Your task to perform on an android device: install app "DoorDash - Dasher" Image 0: 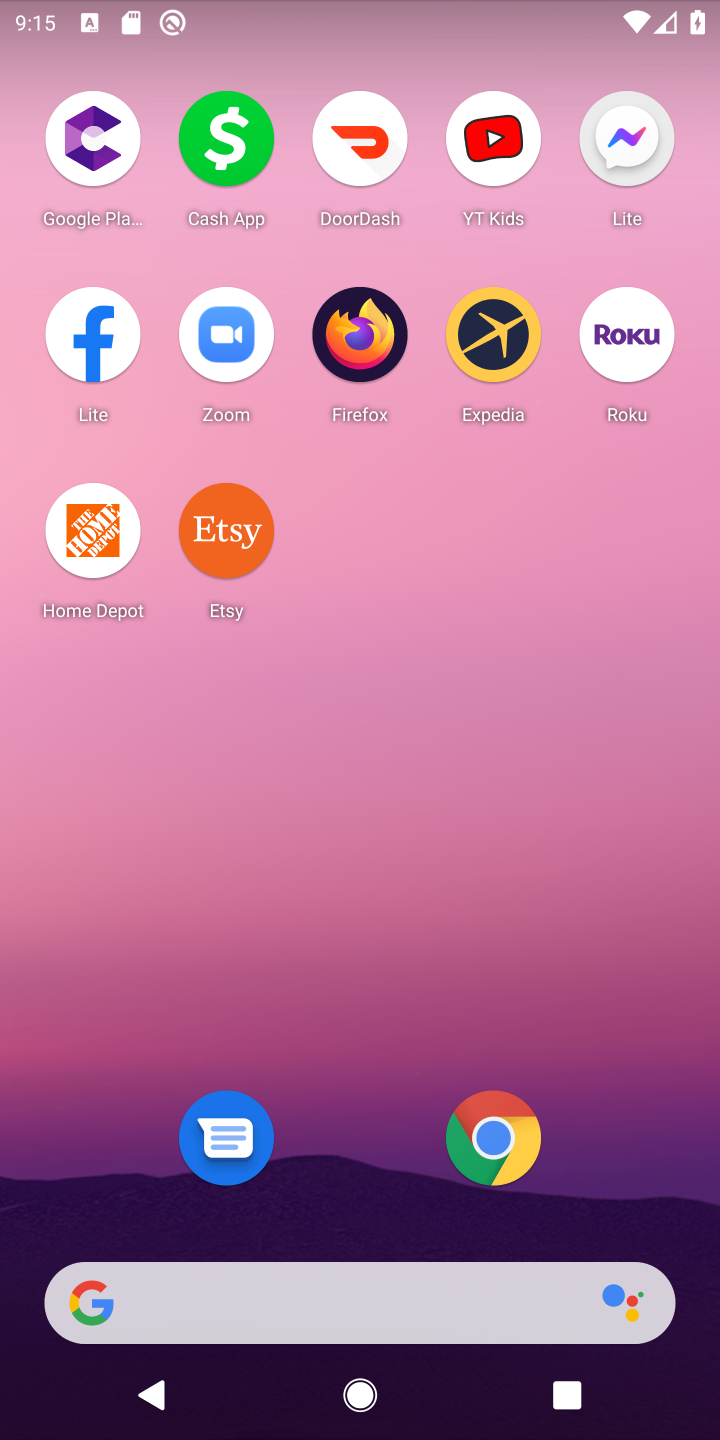
Step 0: drag from (348, 1266) to (450, 722)
Your task to perform on an android device: install app "DoorDash - Dasher" Image 1: 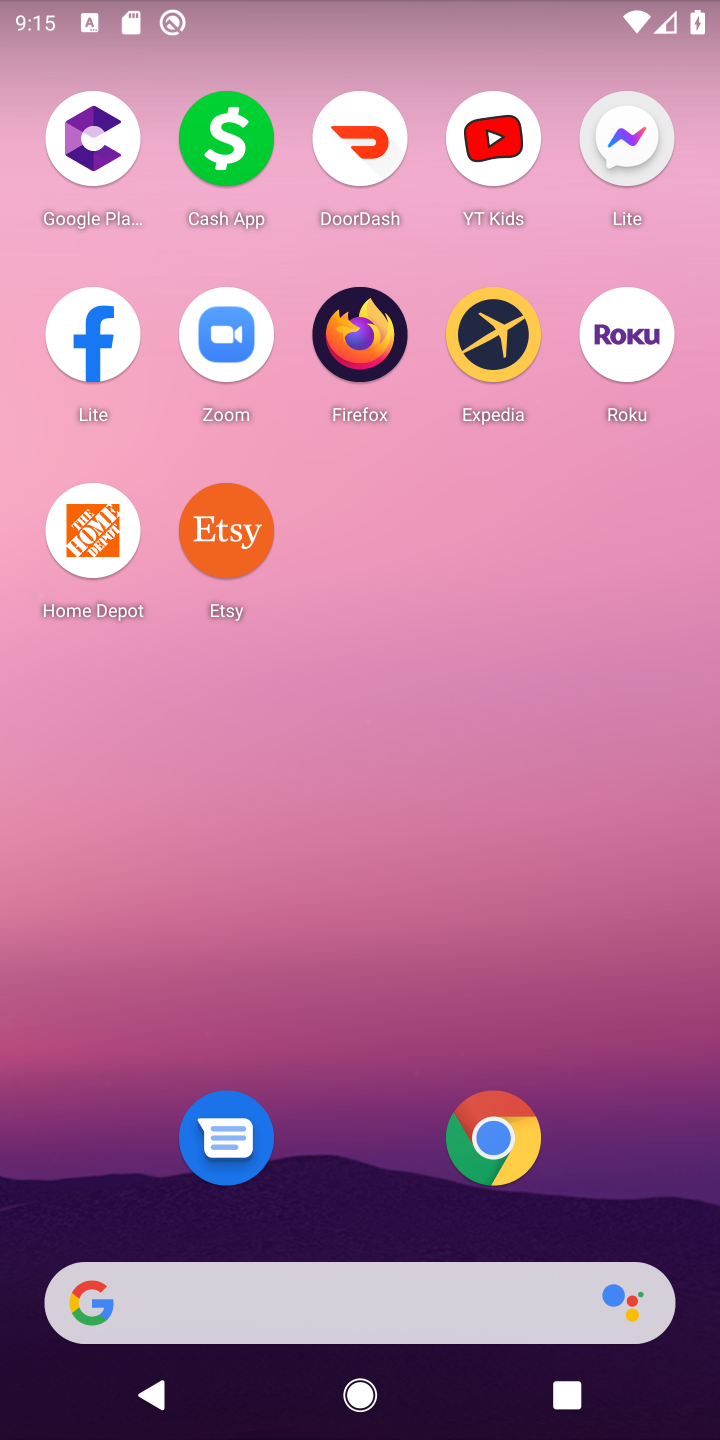
Step 1: drag from (288, 1183) to (300, 81)
Your task to perform on an android device: install app "DoorDash - Dasher" Image 2: 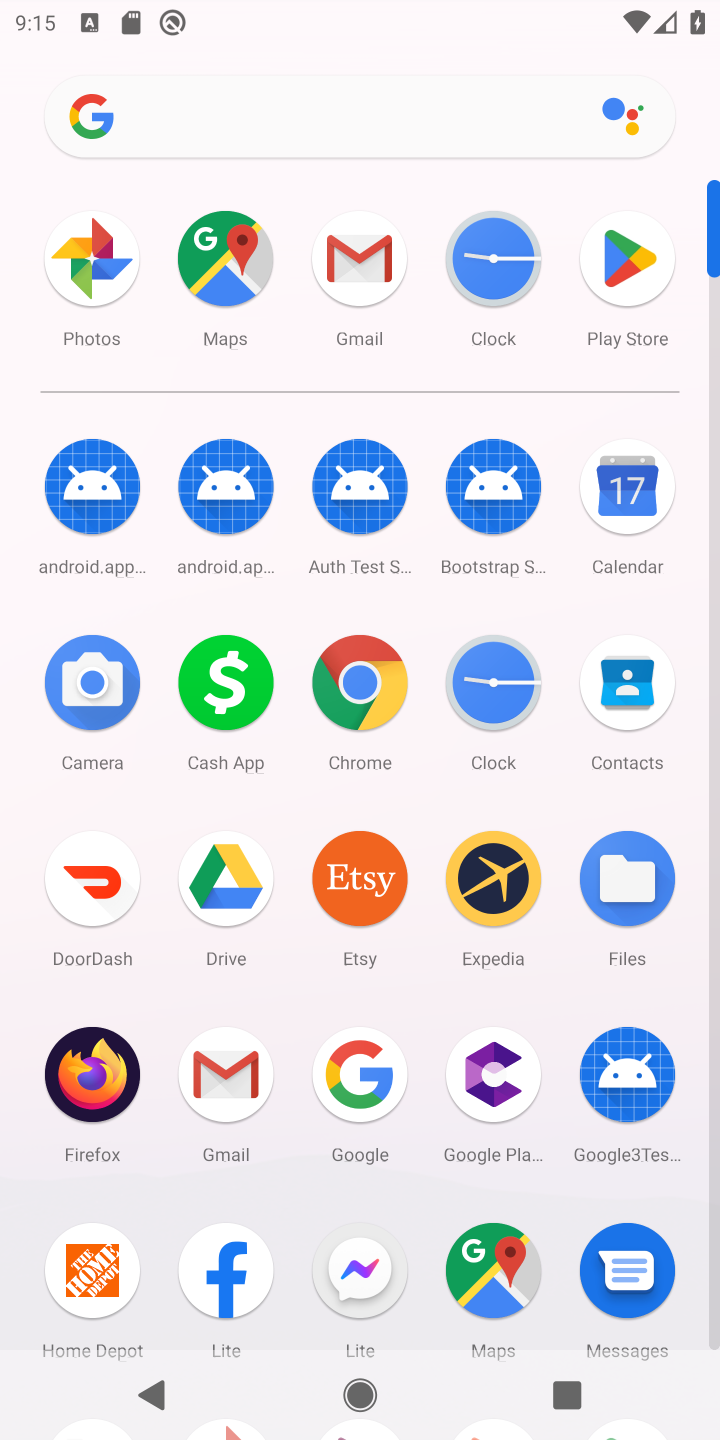
Step 2: click (625, 267)
Your task to perform on an android device: install app "DoorDash - Dasher" Image 3: 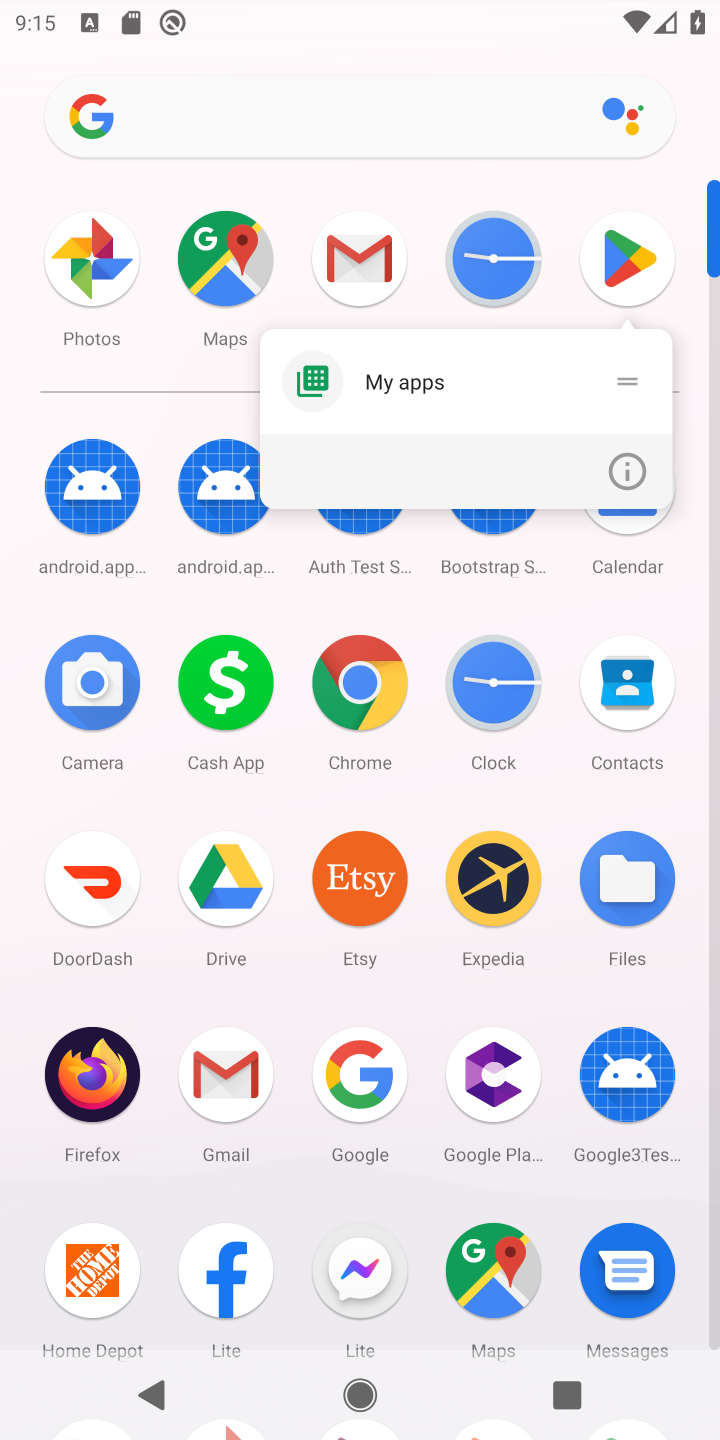
Step 3: click (625, 267)
Your task to perform on an android device: install app "DoorDash - Dasher" Image 4: 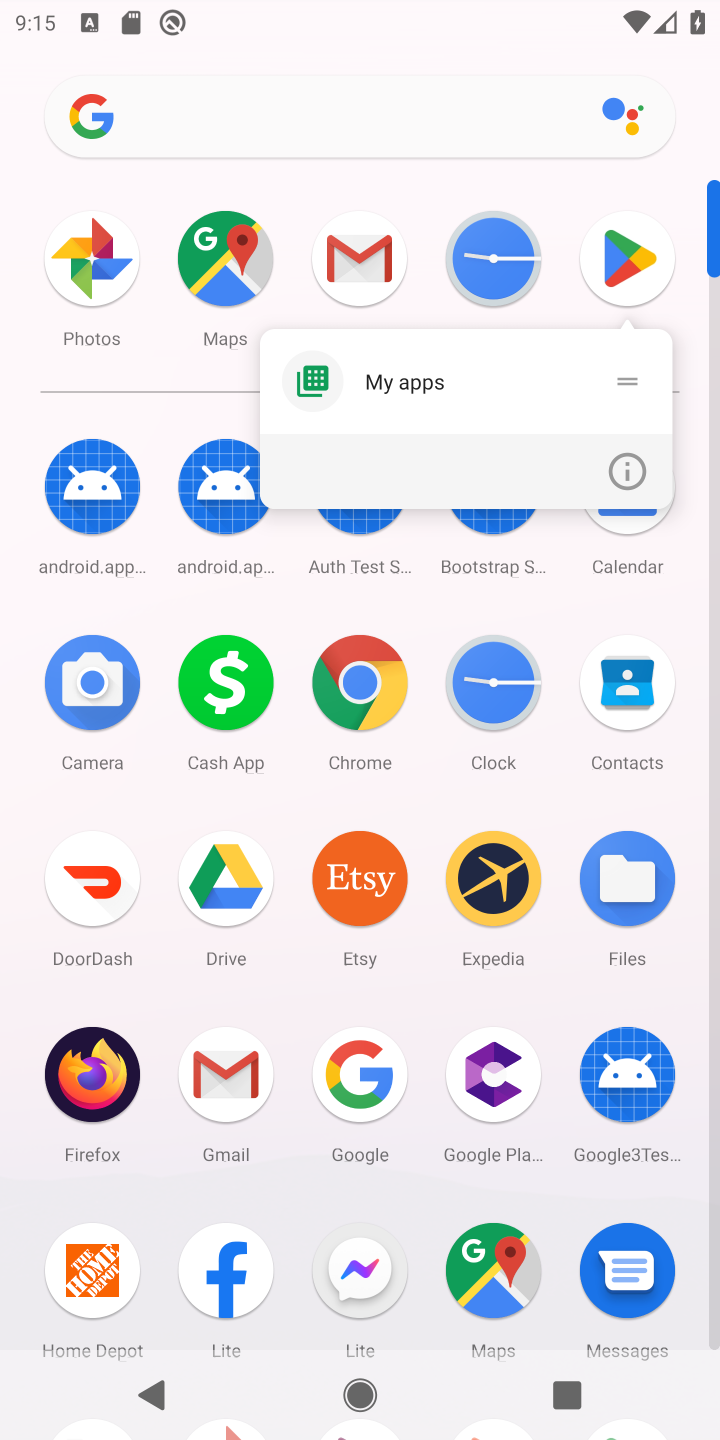
Step 4: click (625, 267)
Your task to perform on an android device: install app "DoorDash - Dasher" Image 5: 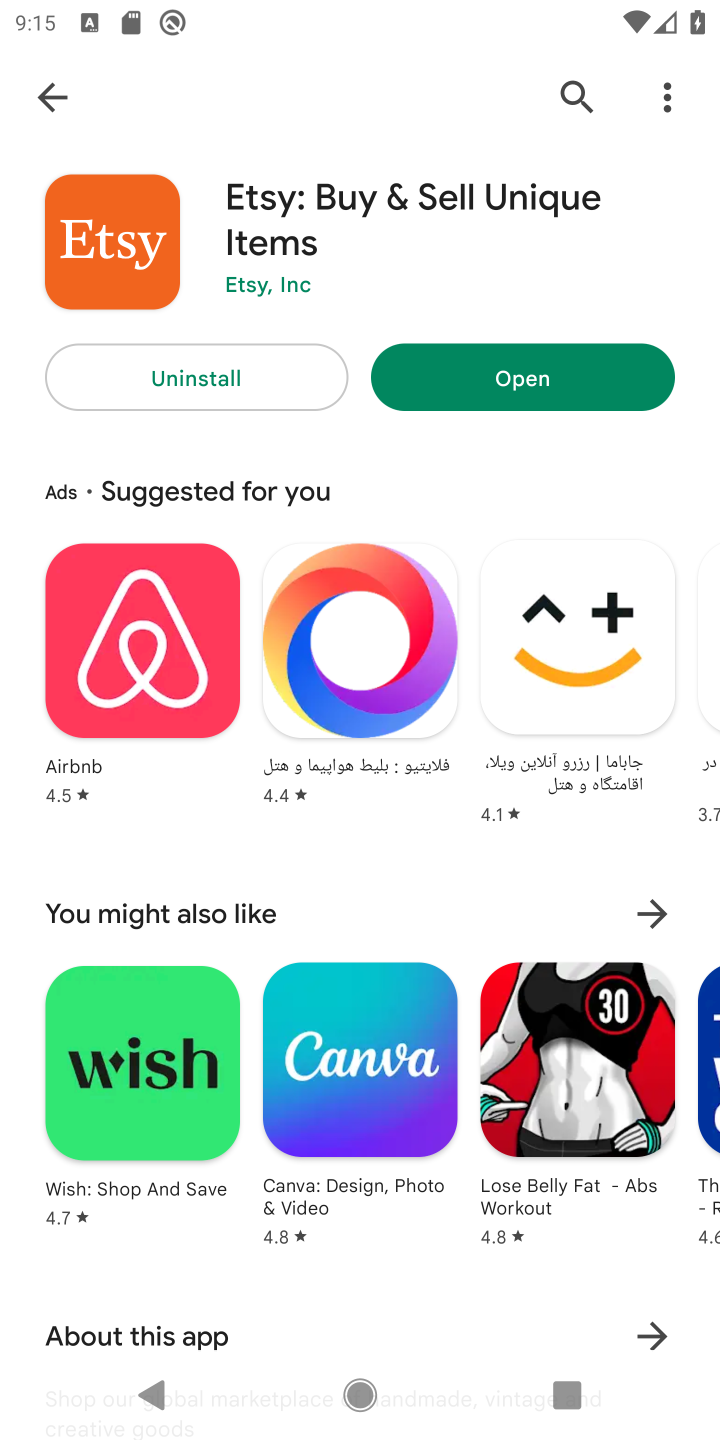
Step 5: click (47, 76)
Your task to perform on an android device: install app "DoorDash - Dasher" Image 6: 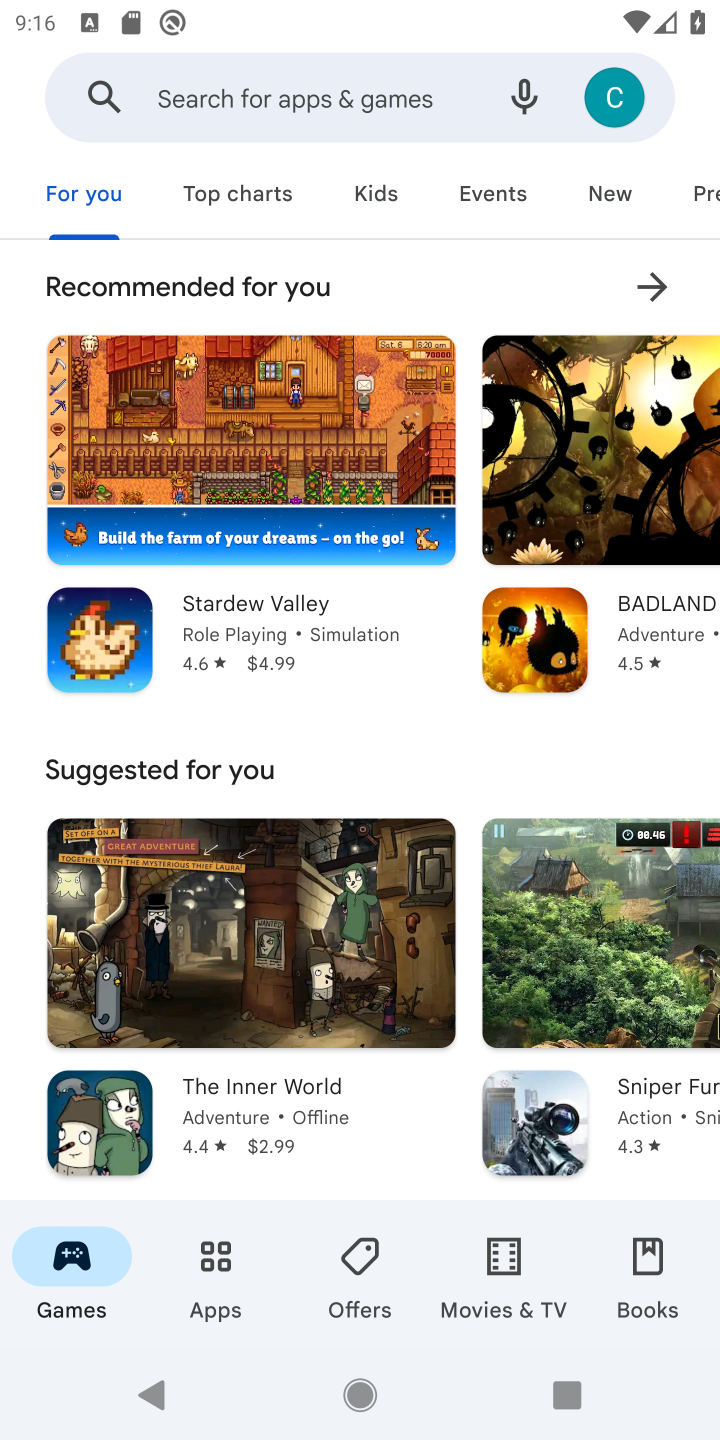
Step 6: click (326, 76)
Your task to perform on an android device: install app "DoorDash - Dasher" Image 7: 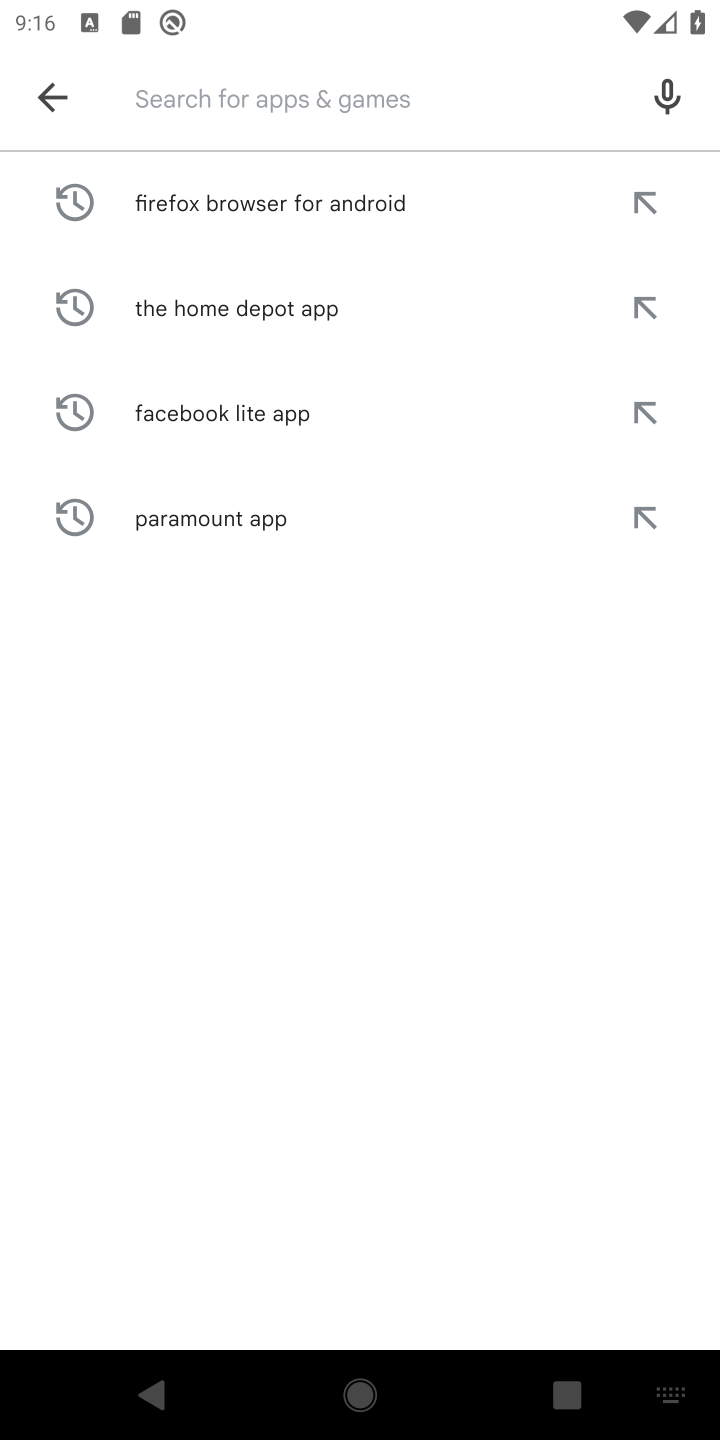
Step 7: type "DoorDash "
Your task to perform on an android device: install app "DoorDash - Dasher" Image 8: 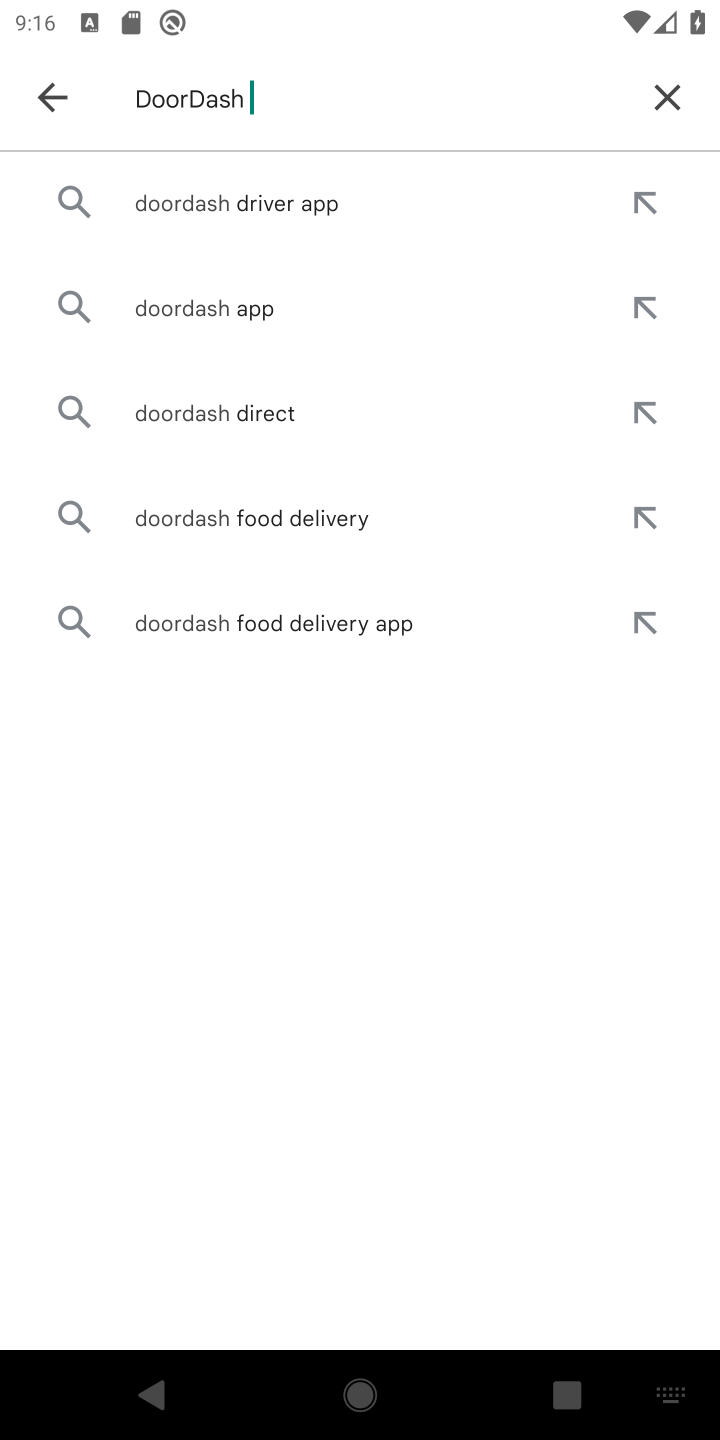
Step 8: click (197, 212)
Your task to perform on an android device: install app "DoorDash - Dasher" Image 9: 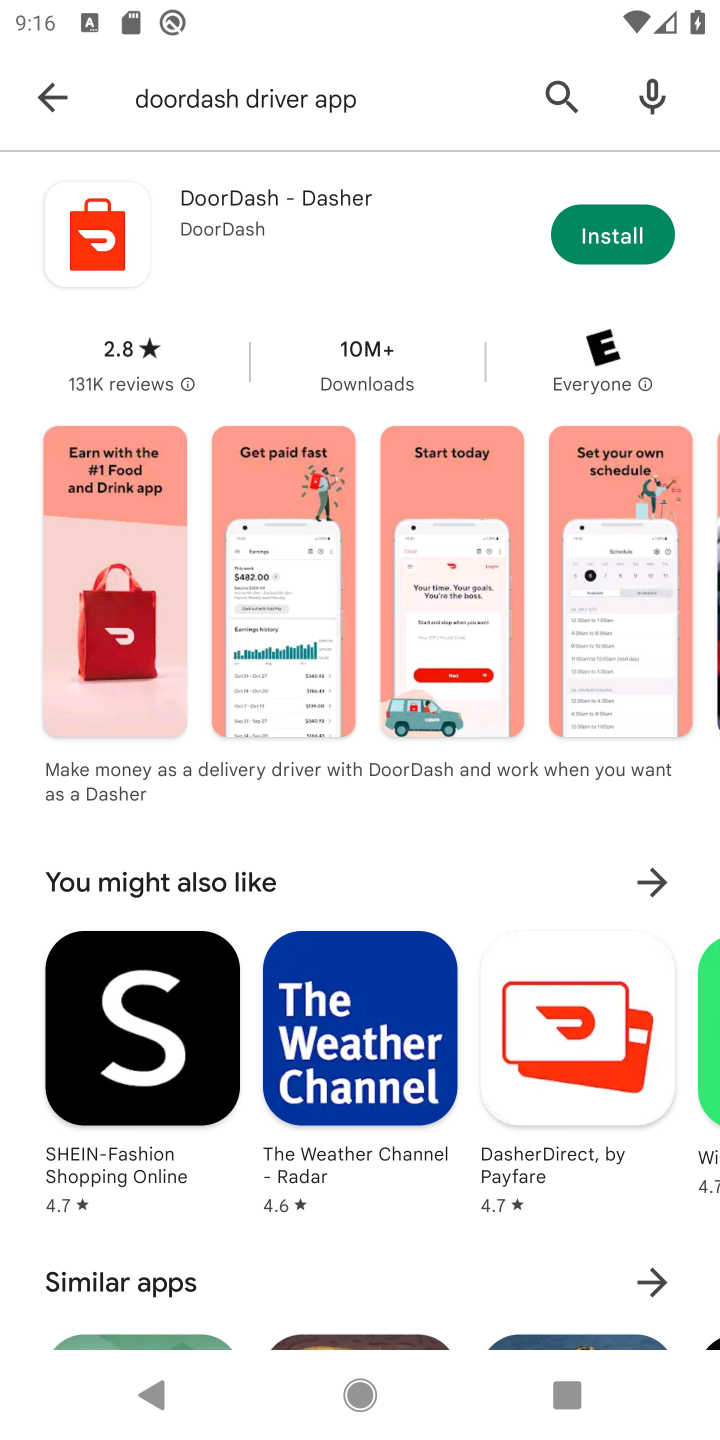
Step 9: click (634, 242)
Your task to perform on an android device: install app "DoorDash - Dasher" Image 10: 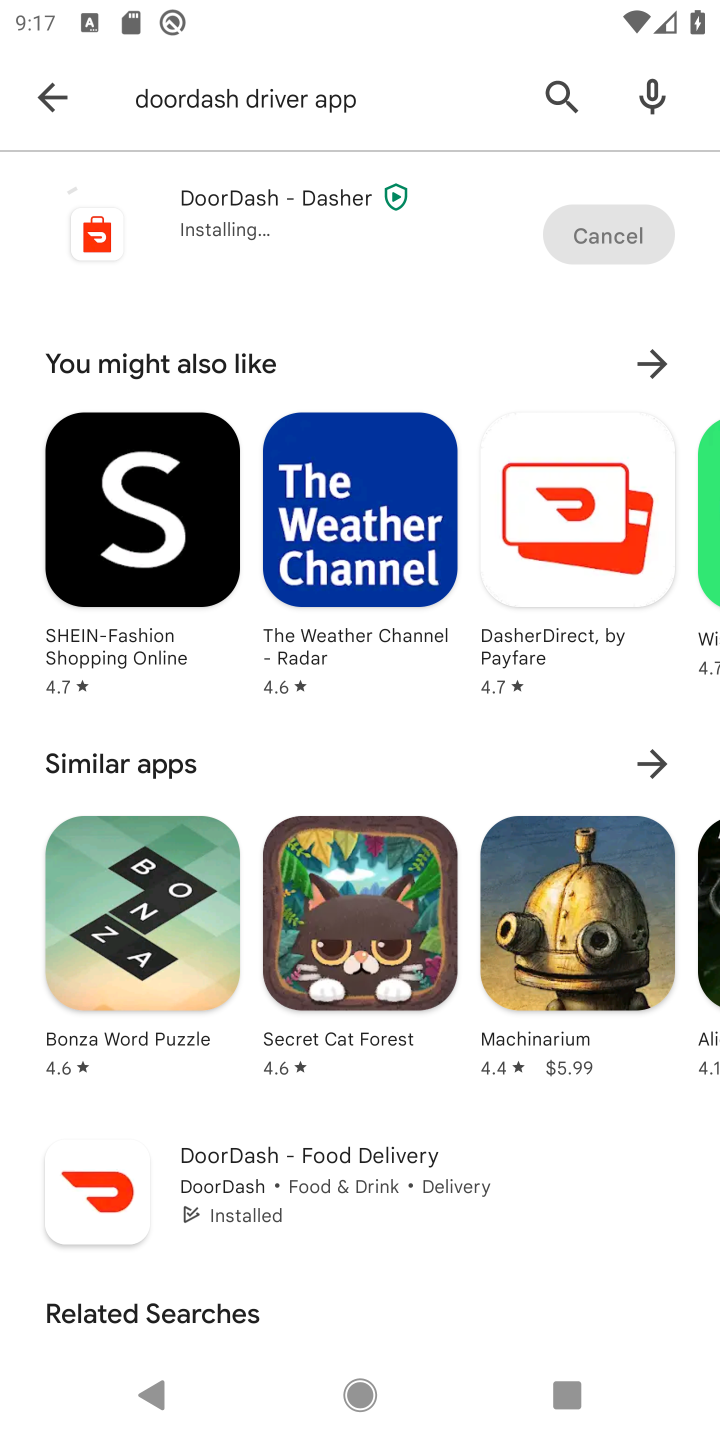
Step 10: task complete